Your task to perform on an android device: toggle javascript in the chrome app Image 0: 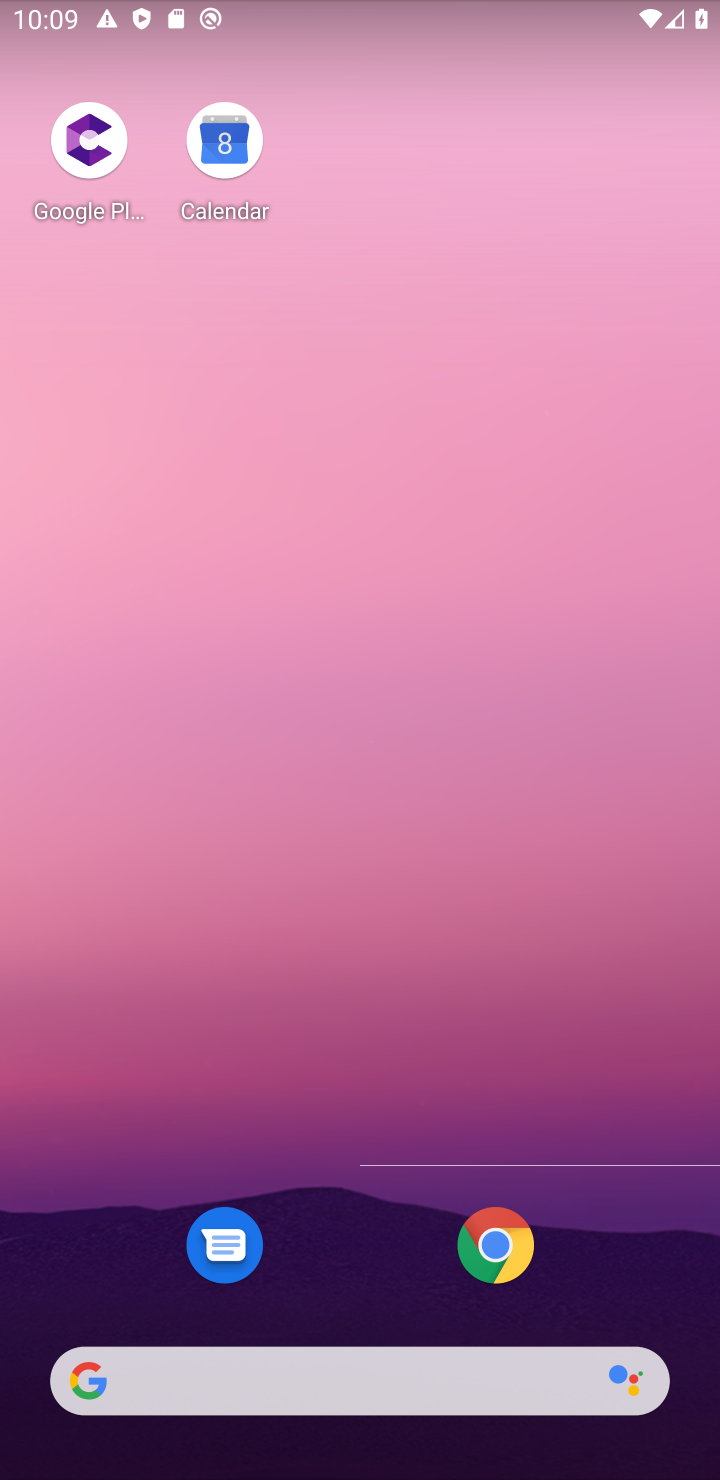
Step 0: drag from (228, 745) to (243, 313)
Your task to perform on an android device: toggle javascript in the chrome app Image 1: 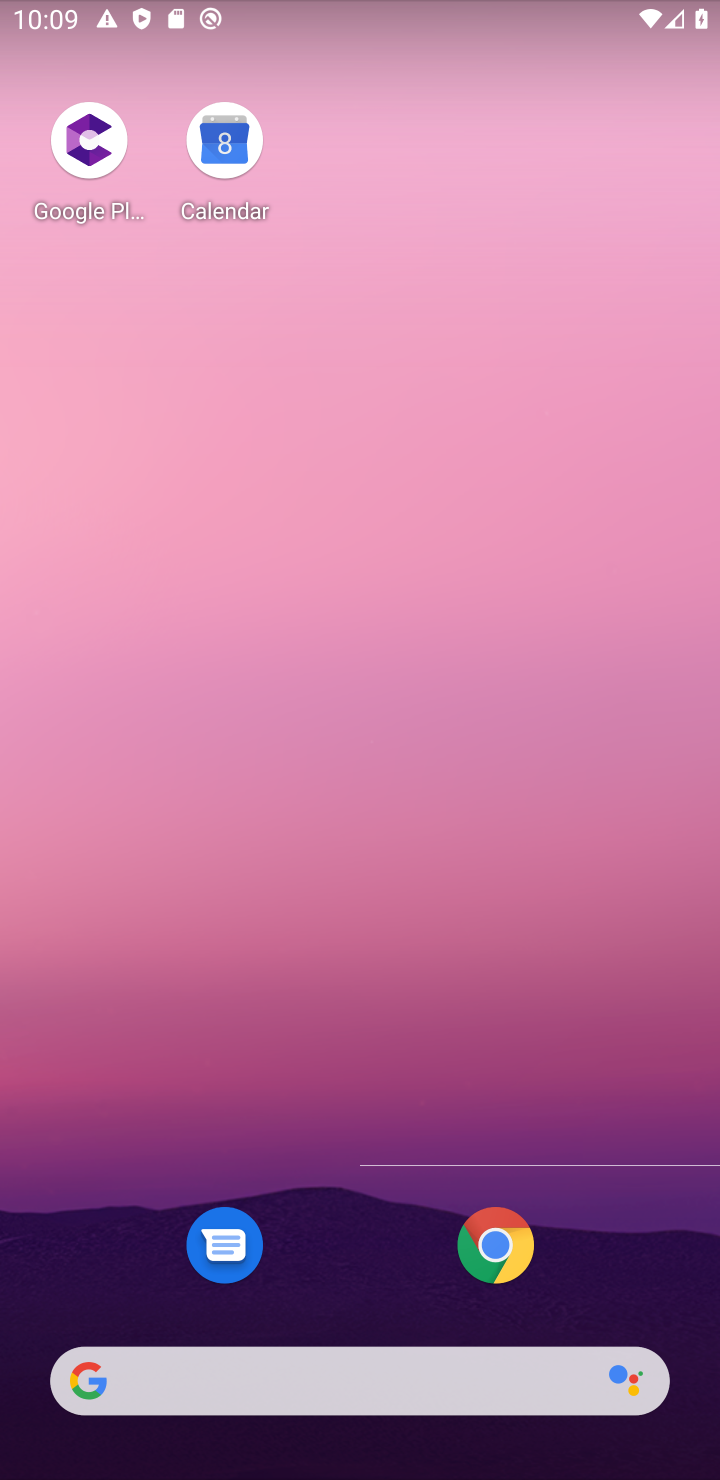
Step 1: click (502, 1240)
Your task to perform on an android device: toggle javascript in the chrome app Image 2: 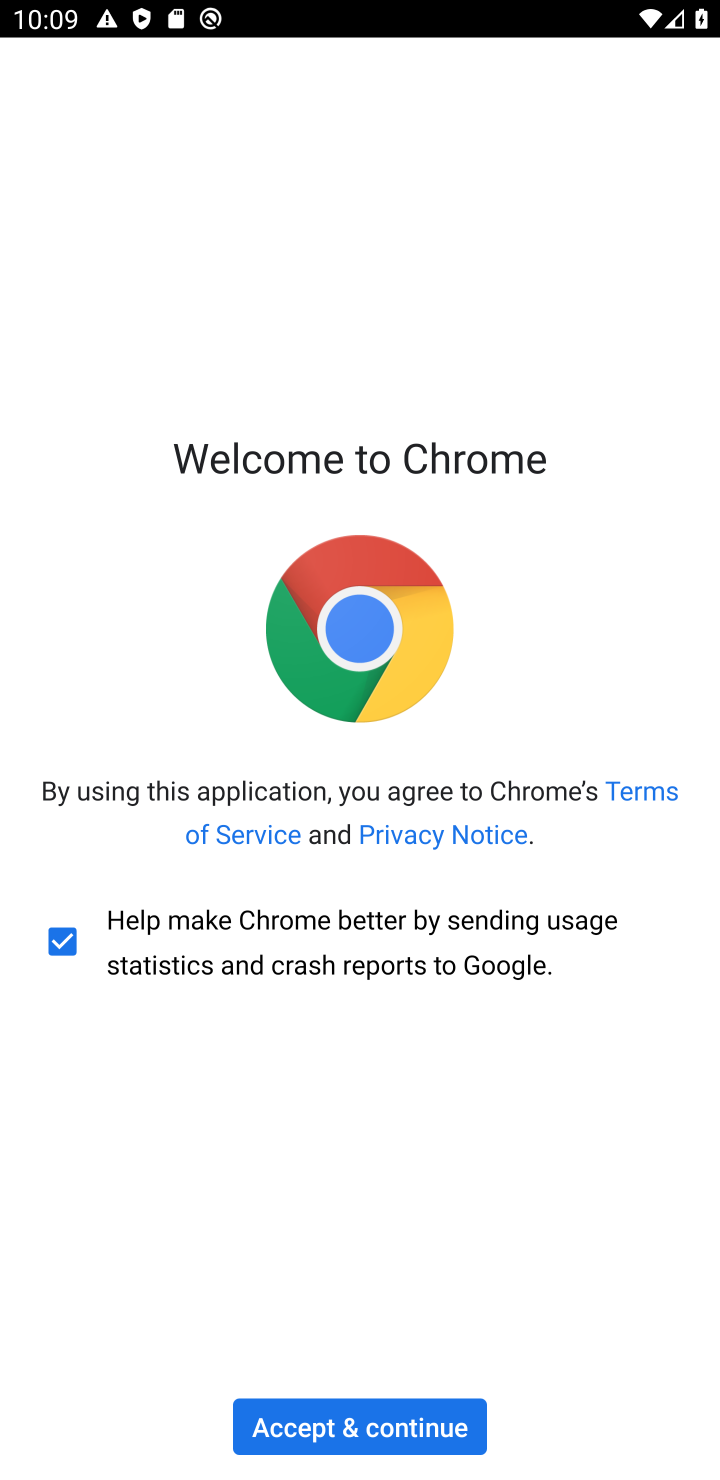
Step 2: click (393, 1436)
Your task to perform on an android device: toggle javascript in the chrome app Image 3: 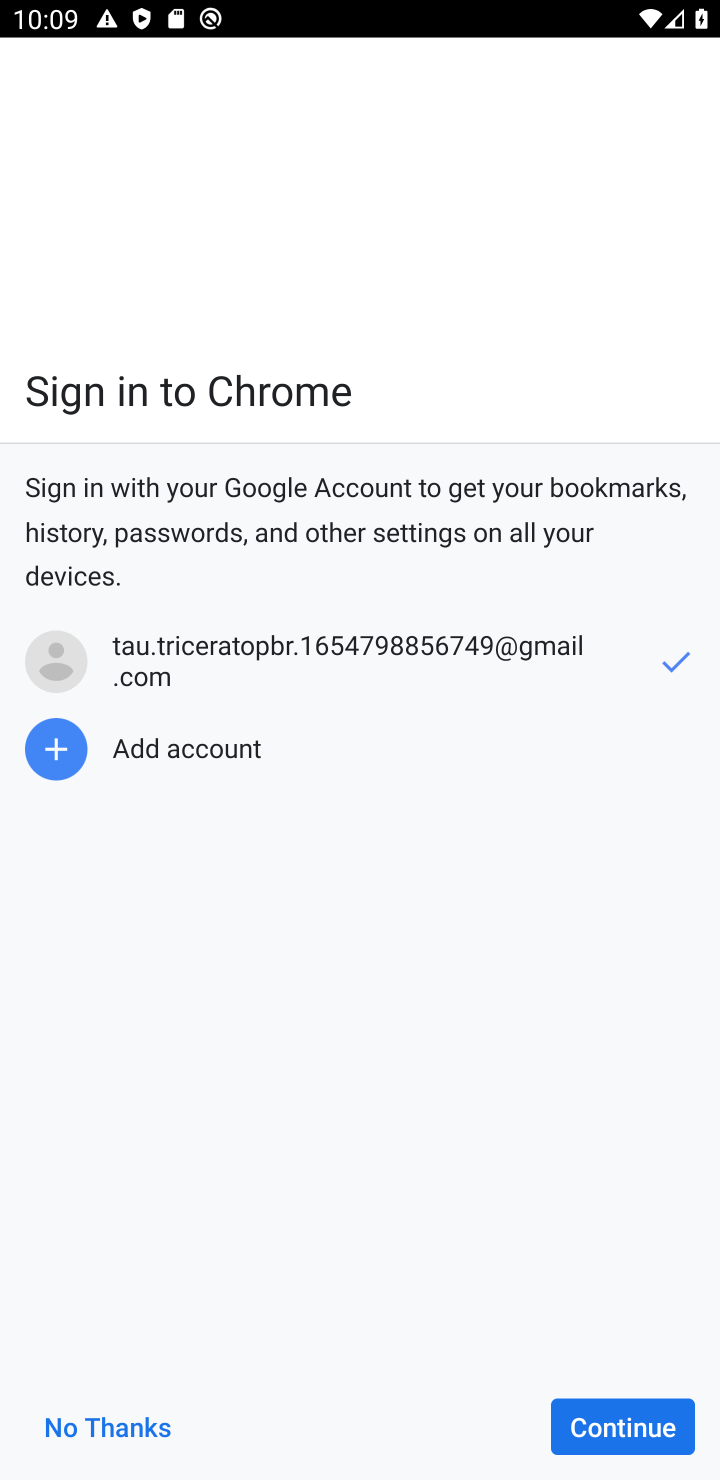
Step 3: click (614, 1410)
Your task to perform on an android device: toggle javascript in the chrome app Image 4: 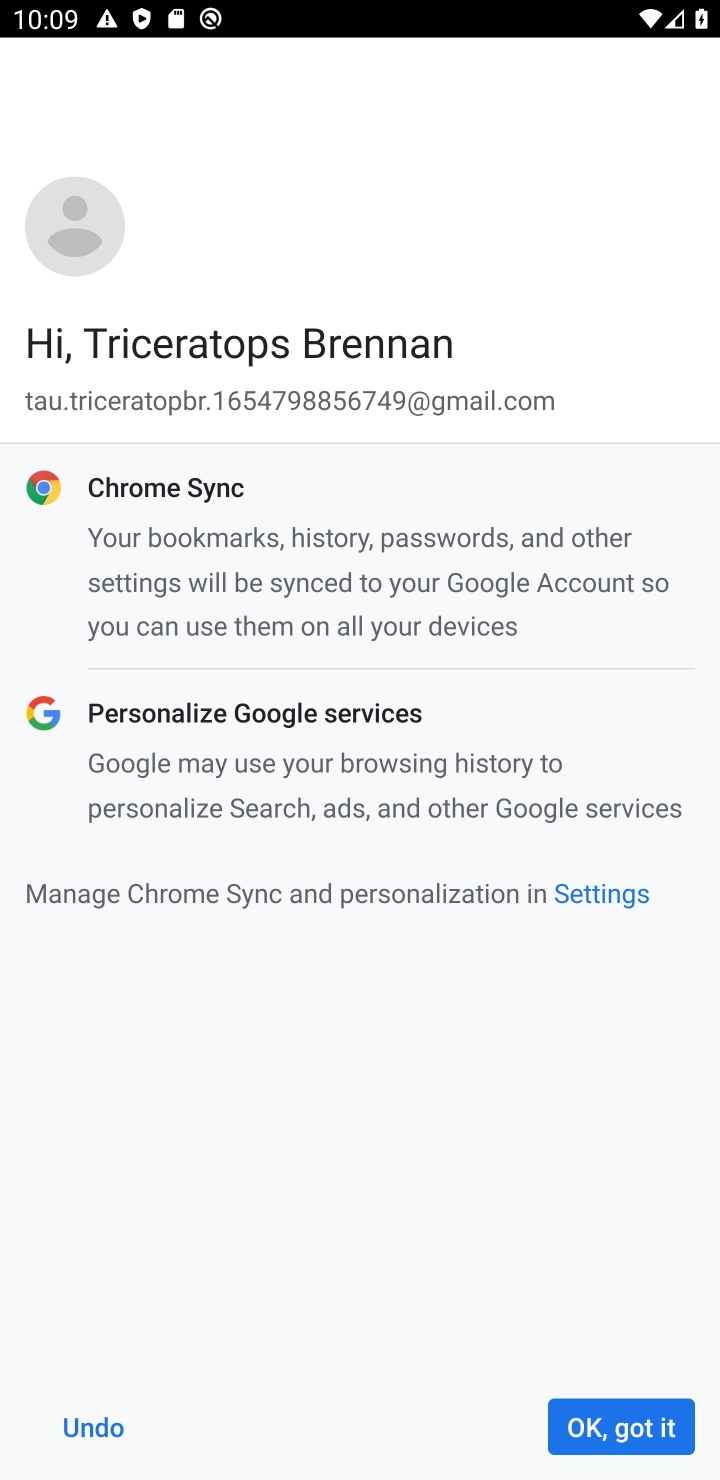
Step 4: click (614, 1412)
Your task to perform on an android device: toggle javascript in the chrome app Image 5: 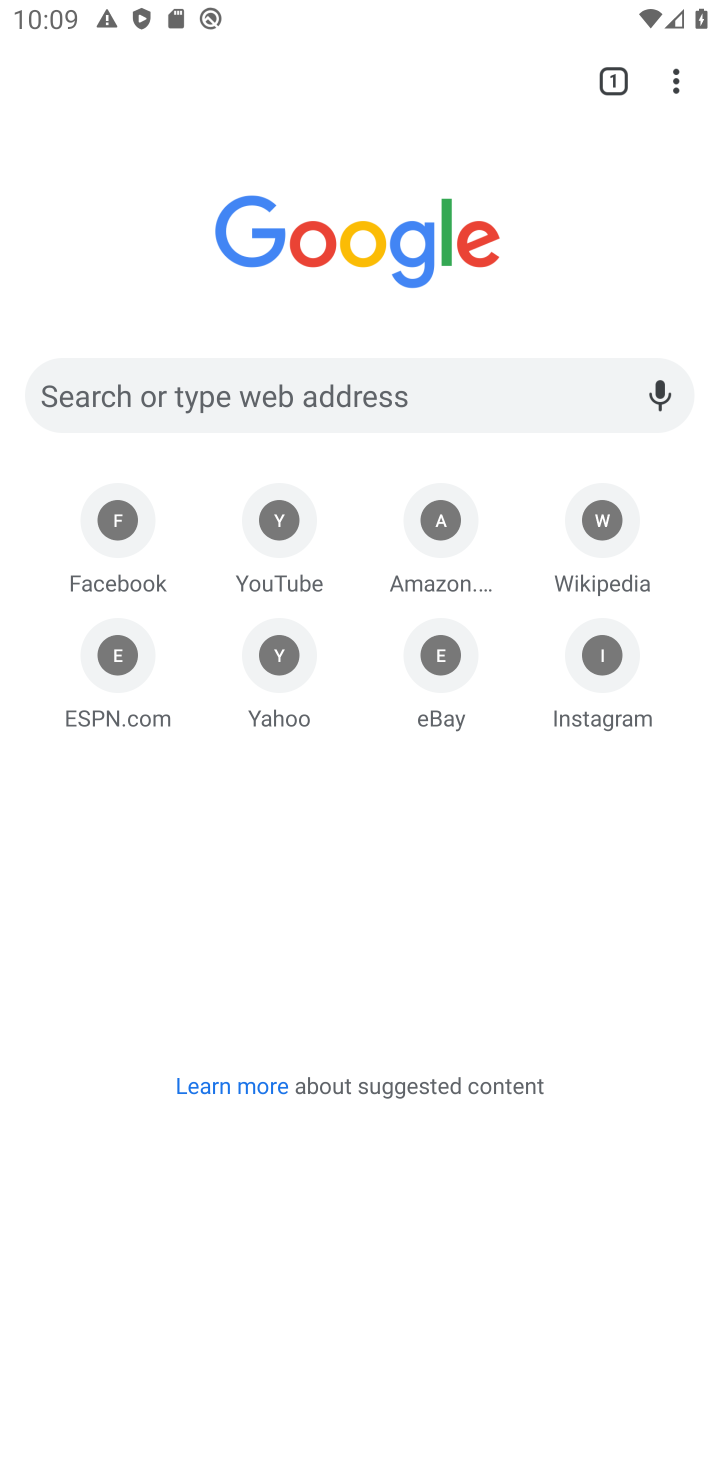
Step 5: click (678, 79)
Your task to perform on an android device: toggle javascript in the chrome app Image 6: 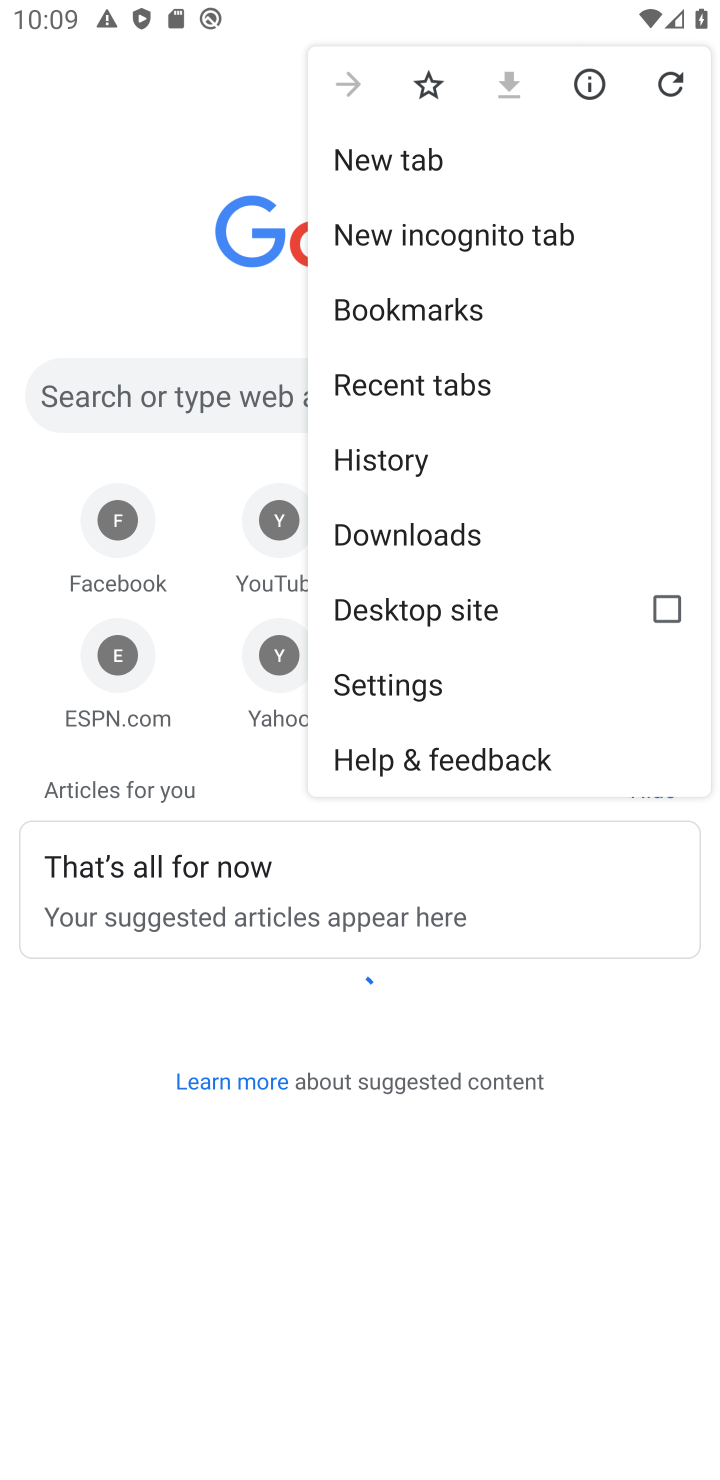
Step 6: click (407, 690)
Your task to perform on an android device: toggle javascript in the chrome app Image 7: 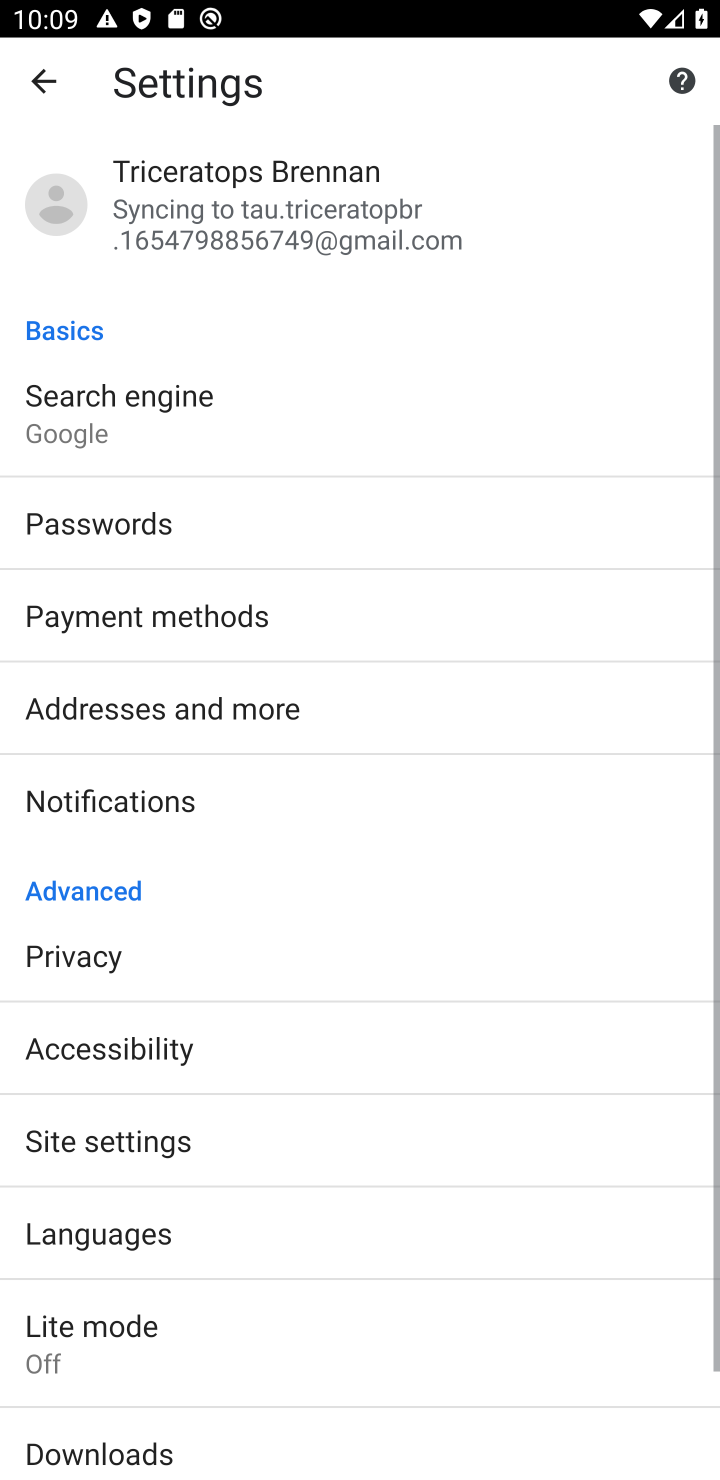
Step 7: drag from (277, 963) to (282, 550)
Your task to perform on an android device: toggle javascript in the chrome app Image 8: 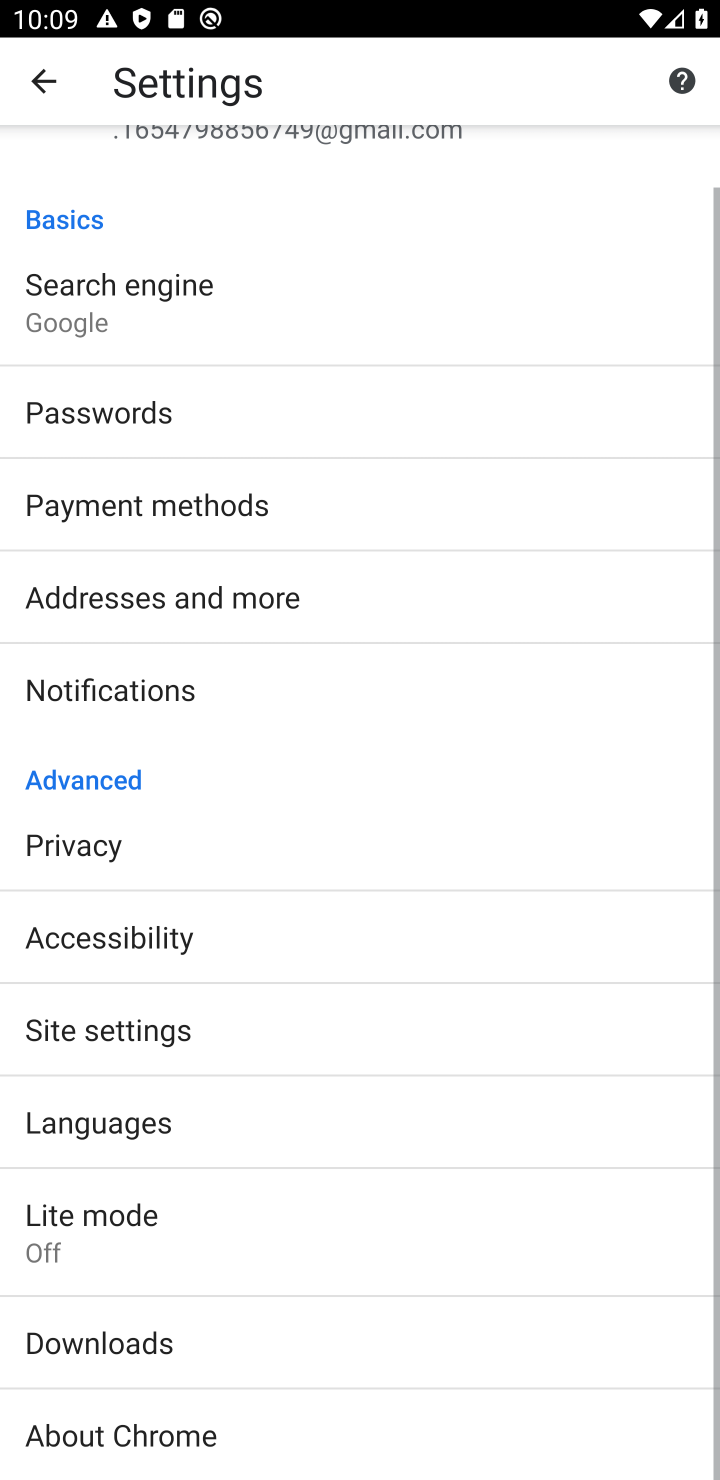
Step 8: click (186, 1019)
Your task to perform on an android device: toggle javascript in the chrome app Image 9: 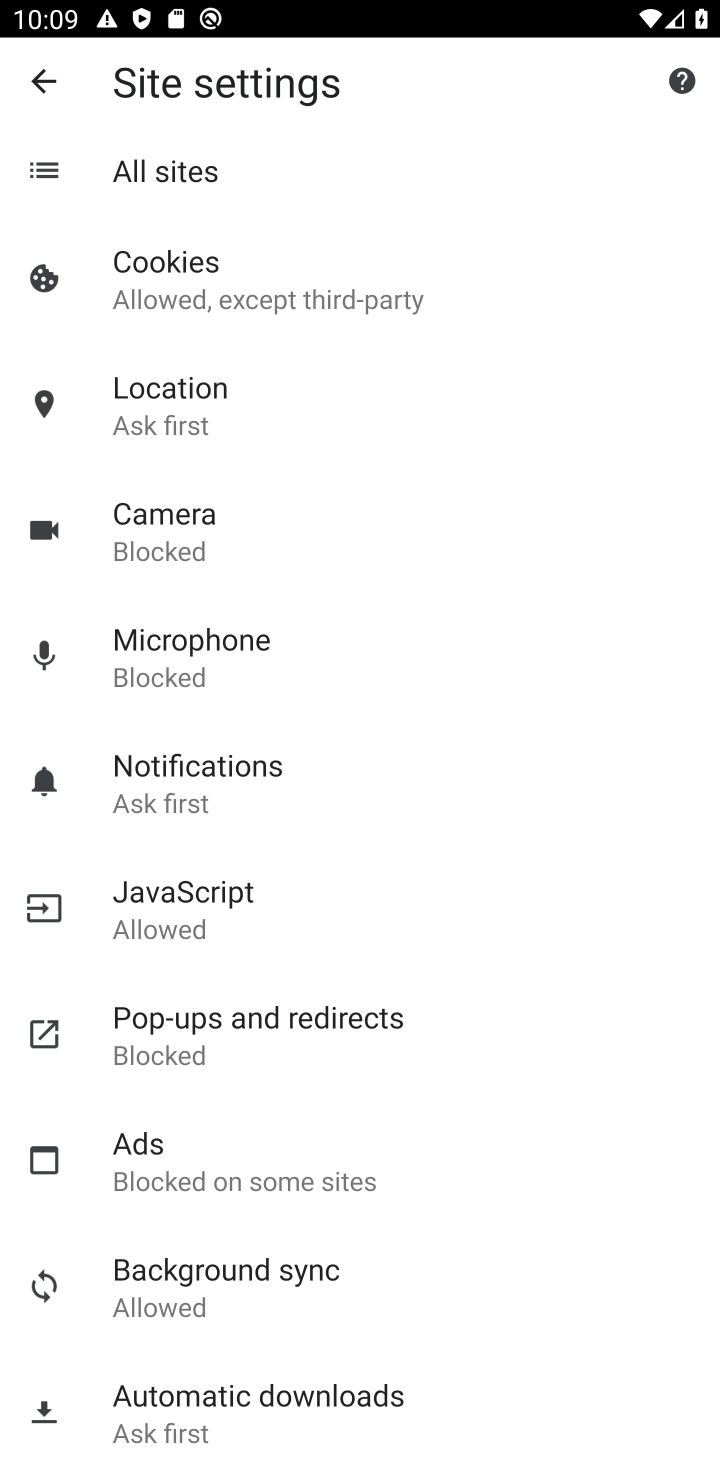
Step 9: click (209, 901)
Your task to perform on an android device: toggle javascript in the chrome app Image 10: 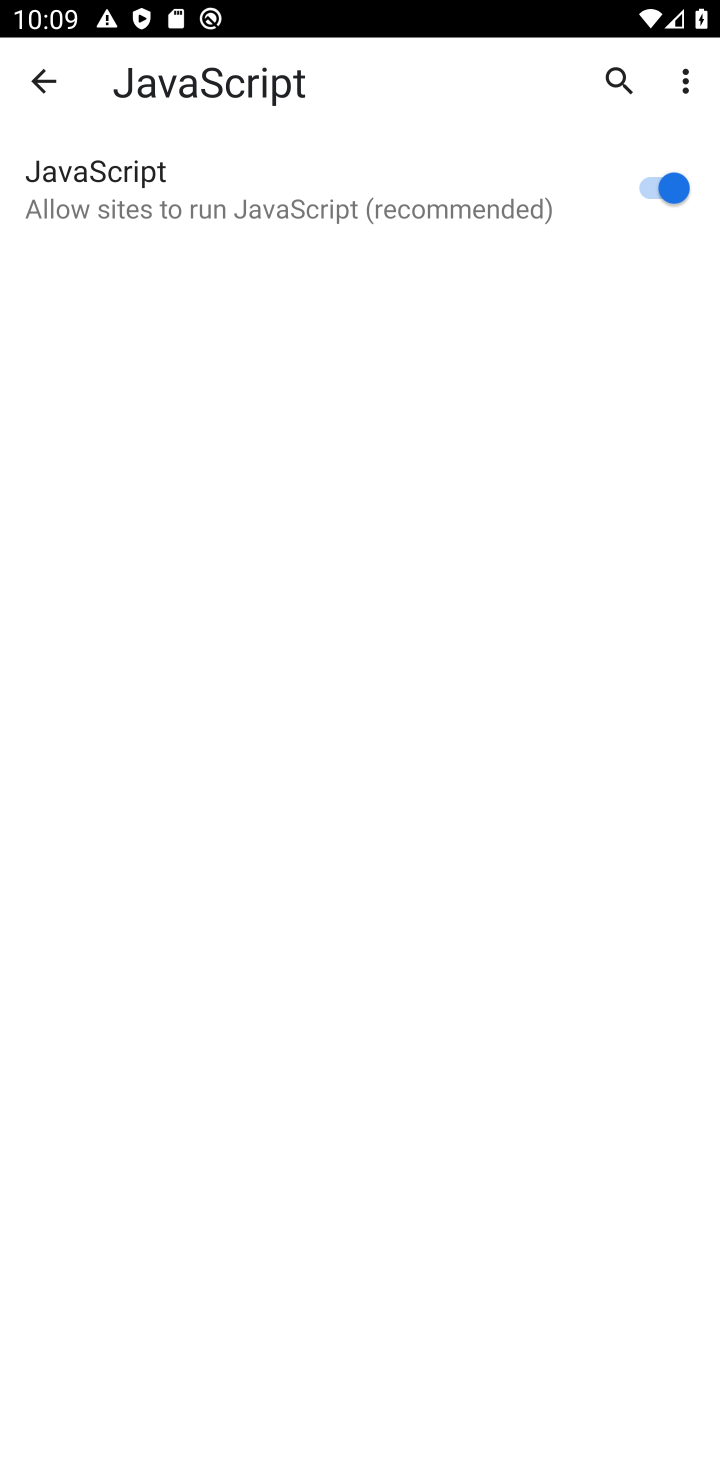
Step 10: click (473, 203)
Your task to perform on an android device: toggle javascript in the chrome app Image 11: 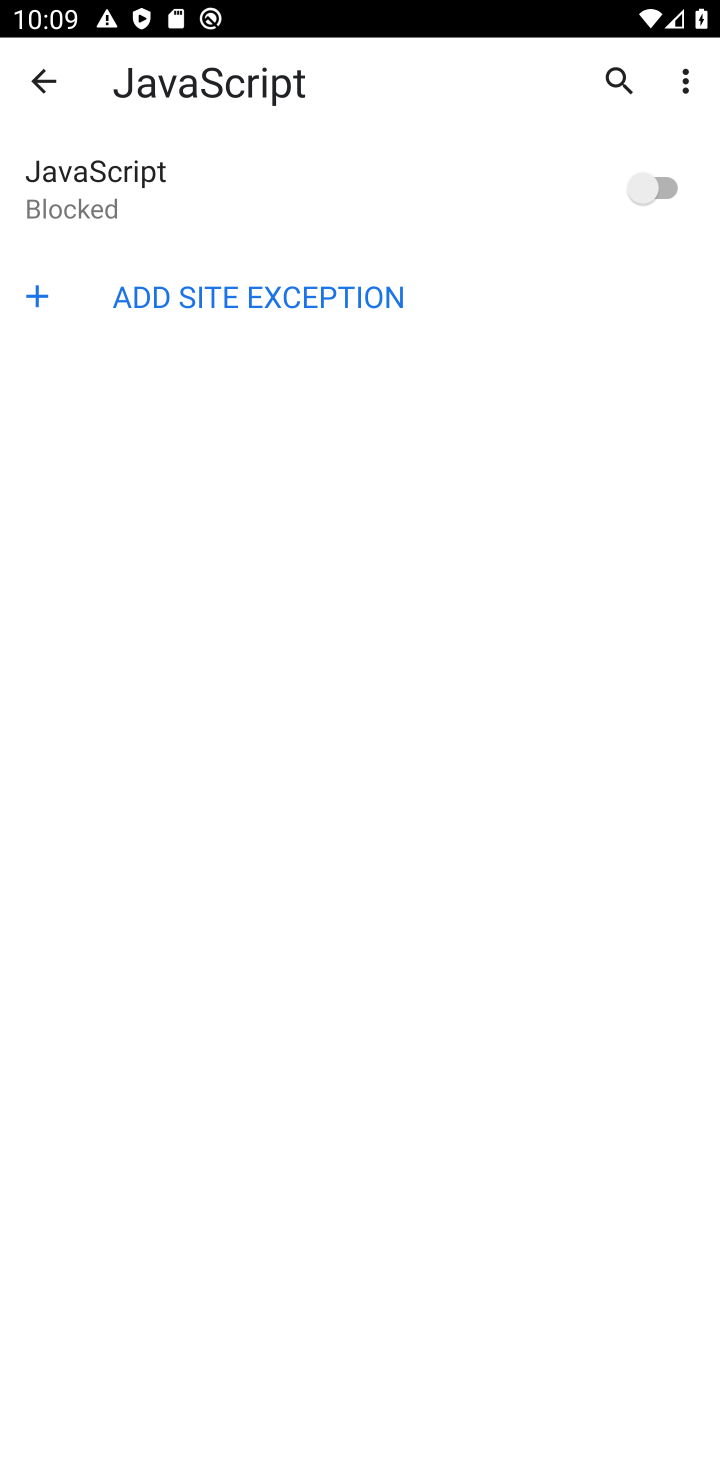
Step 11: task complete